Your task to perform on an android device: search for starred emails in the gmail app Image 0: 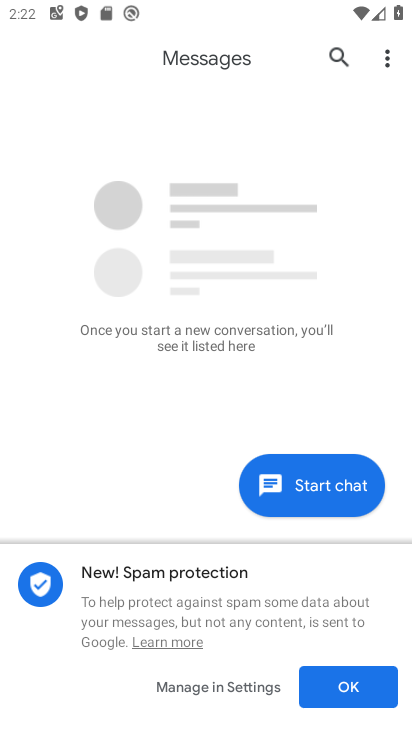
Step 0: press home button
Your task to perform on an android device: search for starred emails in the gmail app Image 1: 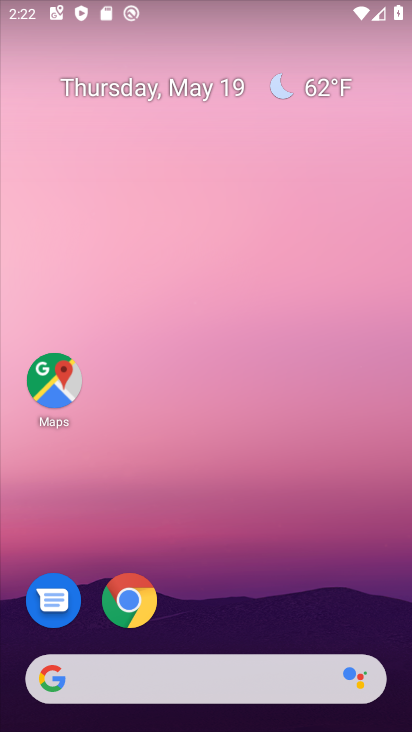
Step 1: drag from (22, 466) to (201, 181)
Your task to perform on an android device: search for starred emails in the gmail app Image 2: 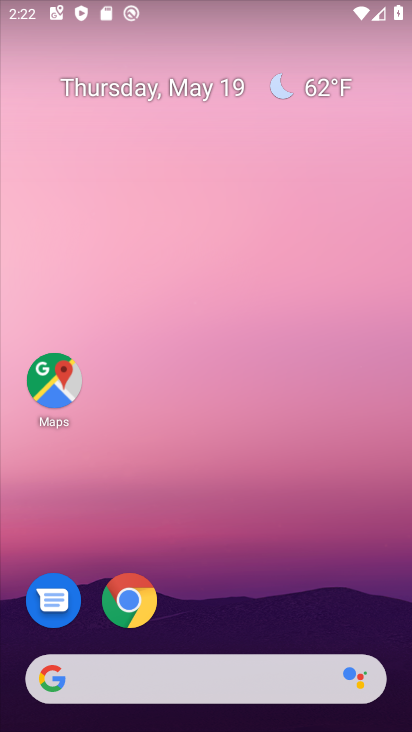
Step 2: drag from (1, 661) to (260, 133)
Your task to perform on an android device: search for starred emails in the gmail app Image 3: 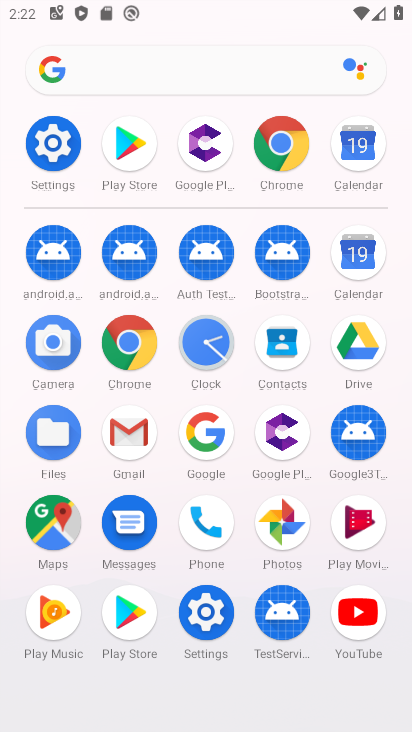
Step 3: click (121, 434)
Your task to perform on an android device: search for starred emails in the gmail app Image 4: 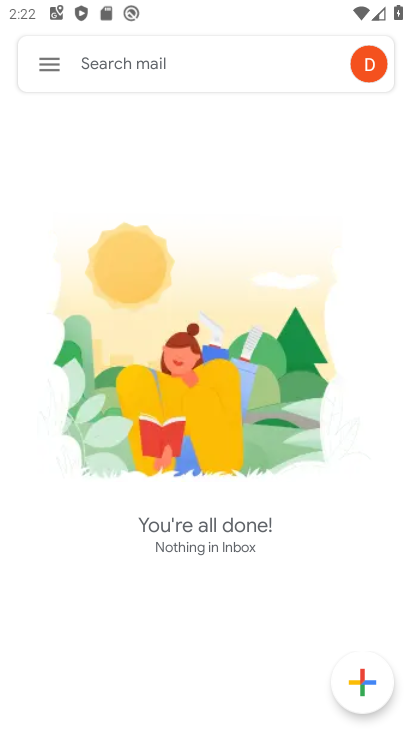
Step 4: click (46, 68)
Your task to perform on an android device: search for starred emails in the gmail app Image 5: 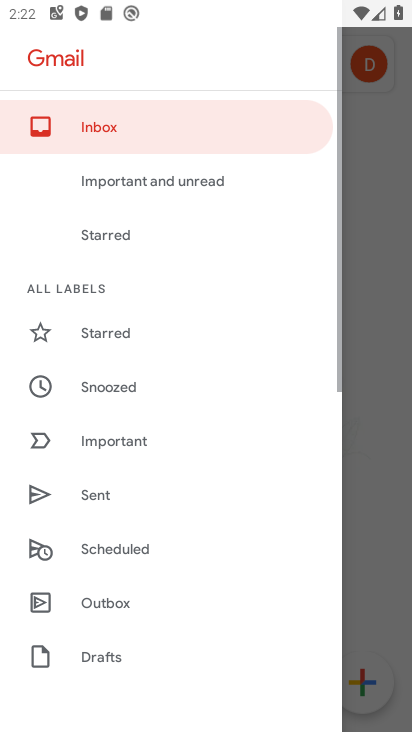
Step 5: drag from (113, 660) to (161, 321)
Your task to perform on an android device: search for starred emails in the gmail app Image 6: 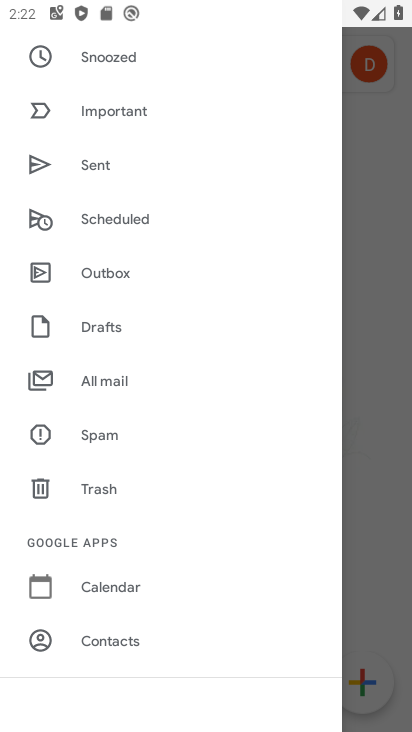
Step 6: drag from (127, 89) to (127, 455)
Your task to perform on an android device: search for starred emails in the gmail app Image 7: 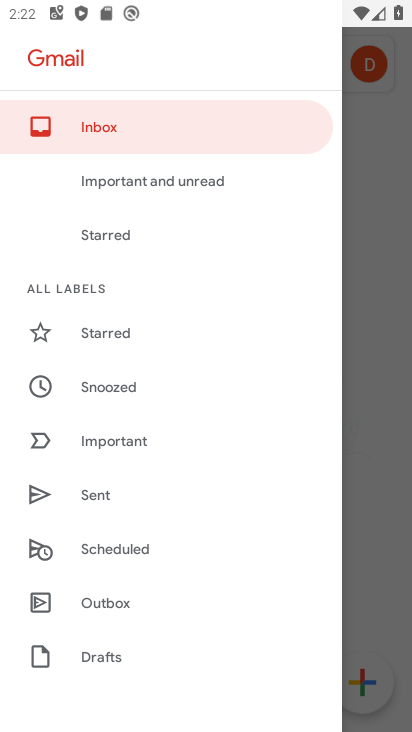
Step 7: click (116, 233)
Your task to perform on an android device: search for starred emails in the gmail app Image 8: 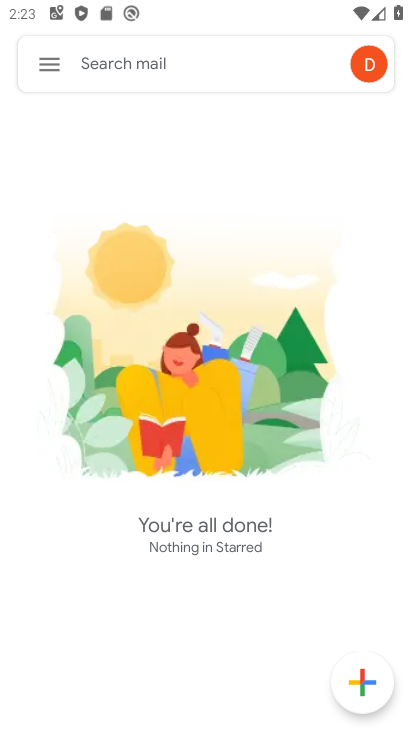
Step 8: click (32, 62)
Your task to perform on an android device: search for starred emails in the gmail app Image 9: 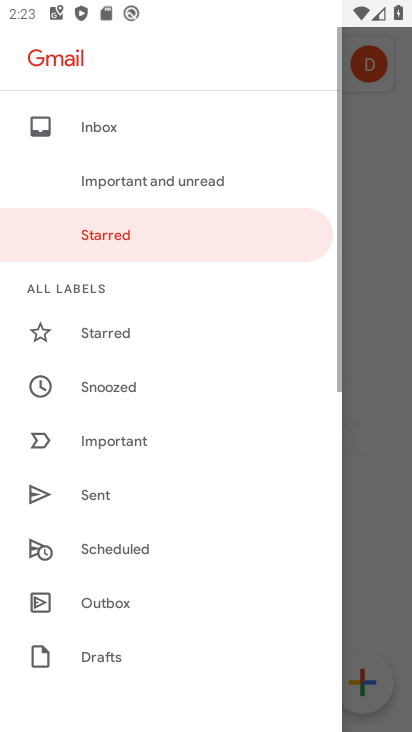
Step 9: click (121, 339)
Your task to perform on an android device: search for starred emails in the gmail app Image 10: 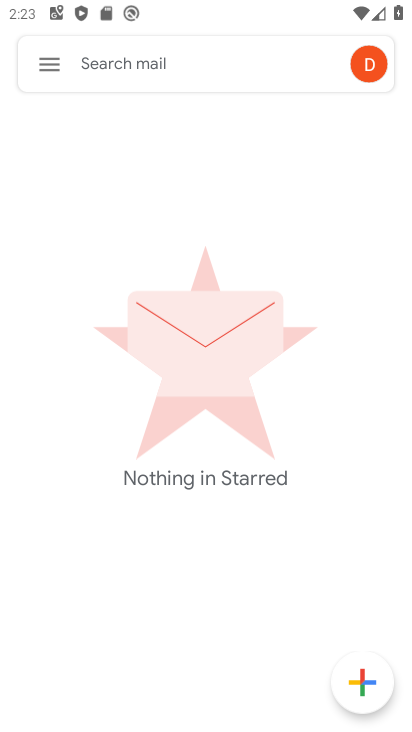
Step 10: task complete